Your task to perform on an android device: Open Google Image 0: 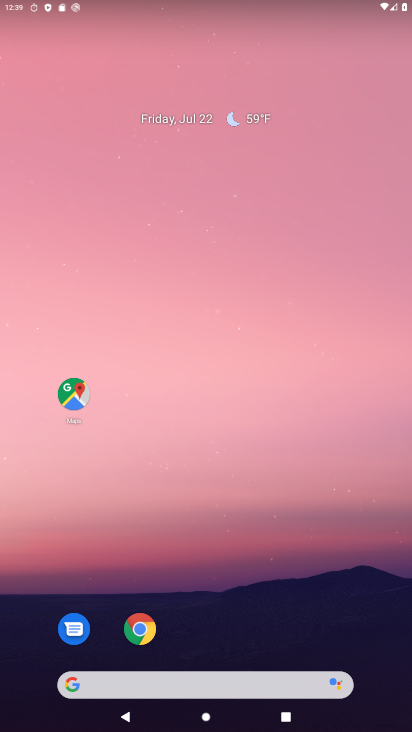
Step 0: drag from (195, 695) to (340, 198)
Your task to perform on an android device: Open Google Image 1: 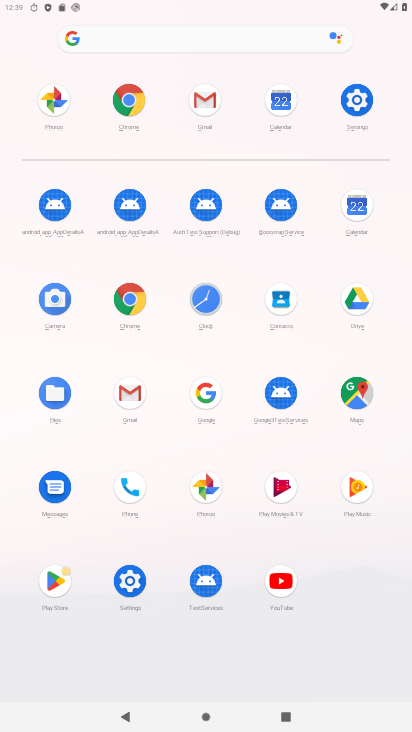
Step 1: click (126, 303)
Your task to perform on an android device: Open Google Image 2: 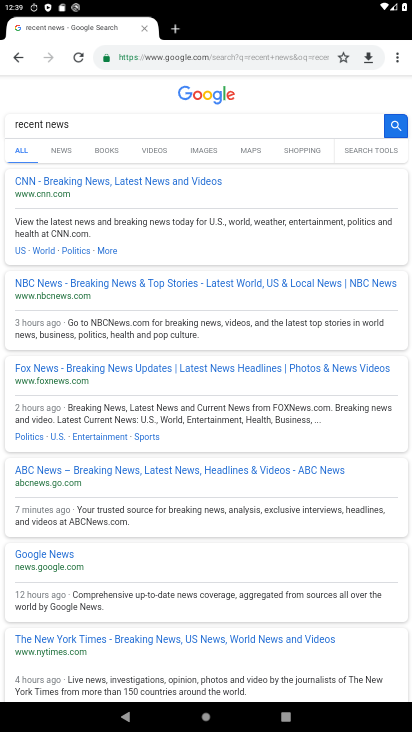
Step 2: click (235, 57)
Your task to perform on an android device: Open Google Image 3: 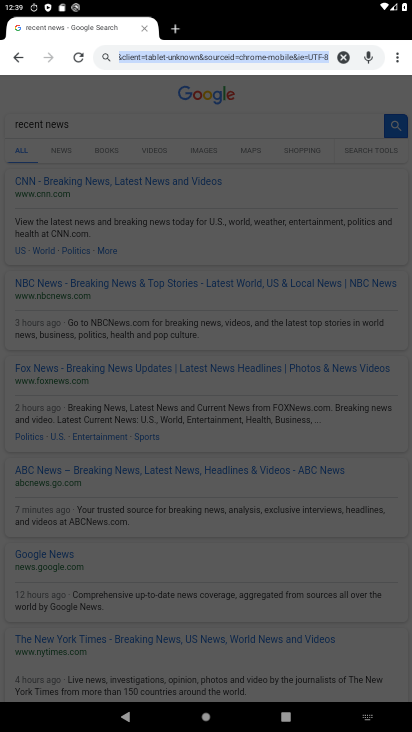
Step 3: click (358, 175)
Your task to perform on an android device: Open Google Image 4: 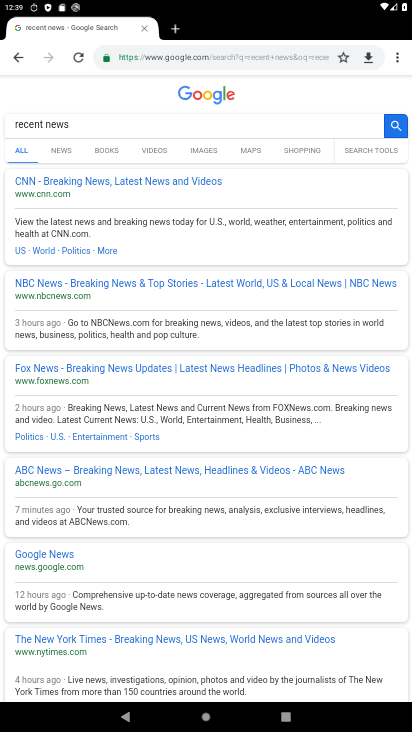
Step 4: task complete